Your task to perform on an android device: Go to Google maps Image 0: 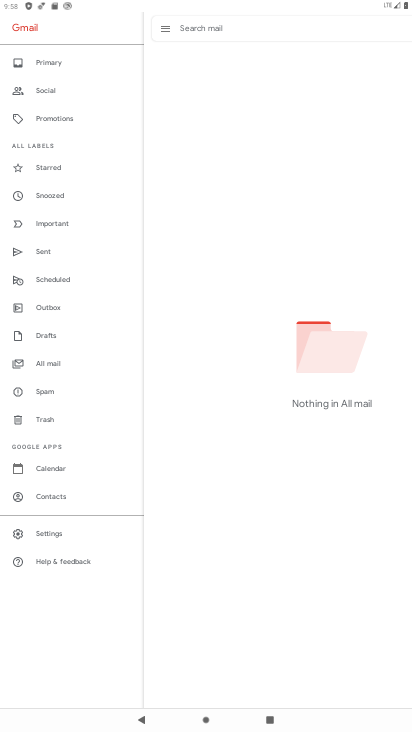
Step 0: press home button
Your task to perform on an android device: Go to Google maps Image 1: 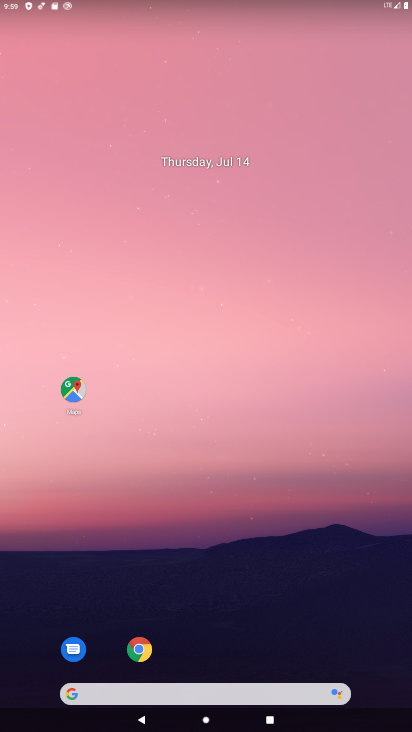
Step 1: click (206, 627)
Your task to perform on an android device: Go to Google maps Image 2: 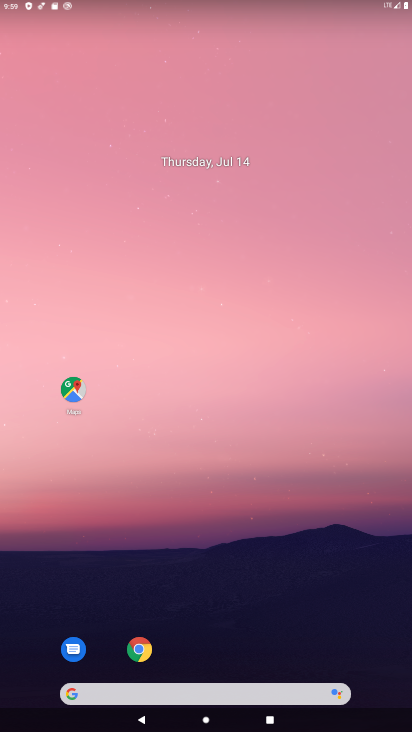
Step 2: click (81, 387)
Your task to perform on an android device: Go to Google maps Image 3: 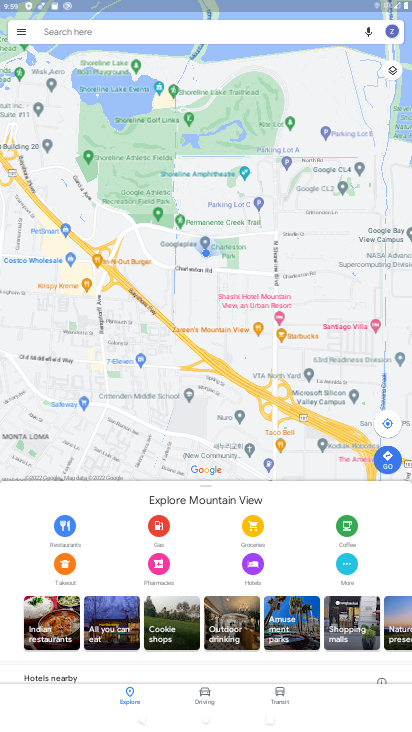
Step 3: task complete